Your task to perform on an android device: toggle show notifications on the lock screen Image 0: 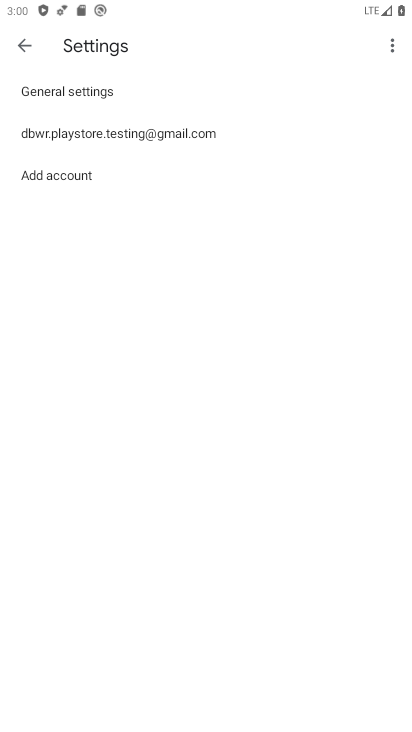
Step 0: press home button
Your task to perform on an android device: toggle show notifications on the lock screen Image 1: 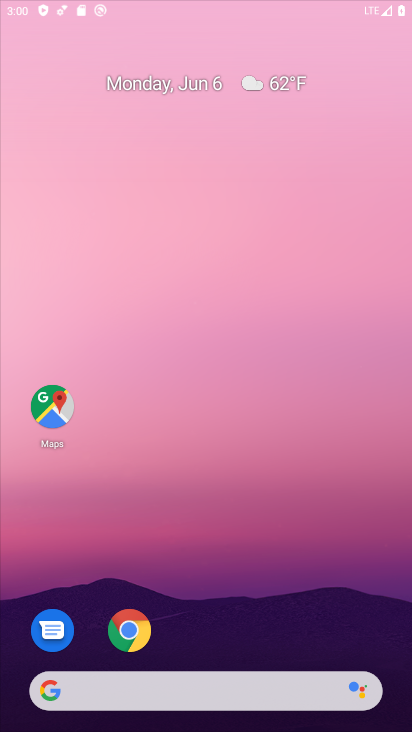
Step 1: click (334, 2)
Your task to perform on an android device: toggle show notifications on the lock screen Image 2: 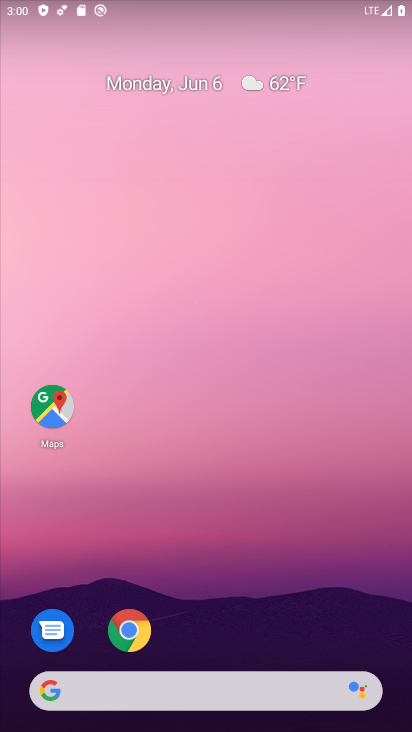
Step 2: drag from (228, 621) to (305, 0)
Your task to perform on an android device: toggle show notifications on the lock screen Image 3: 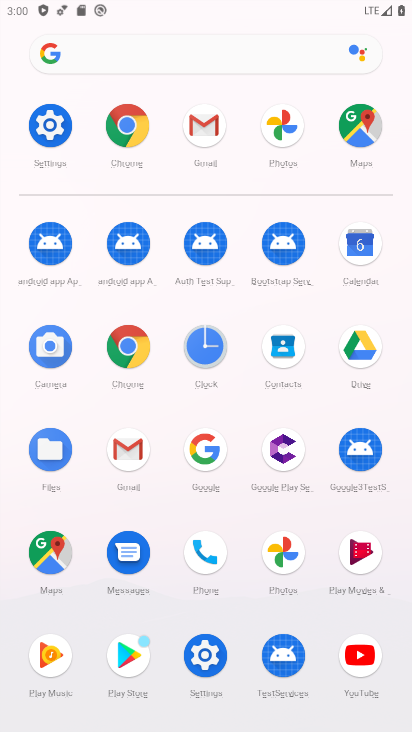
Step 3: click (62, 144)
Your task to perform on an android device: toggle show notifications on the lock screen Image 4: 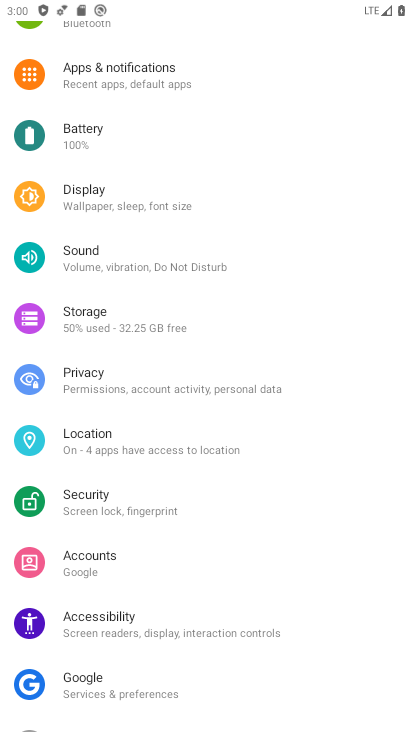
Step 4: click (167, 87)
Your task to perform on an android device: toggle show notifications on the lock screen Image 5: 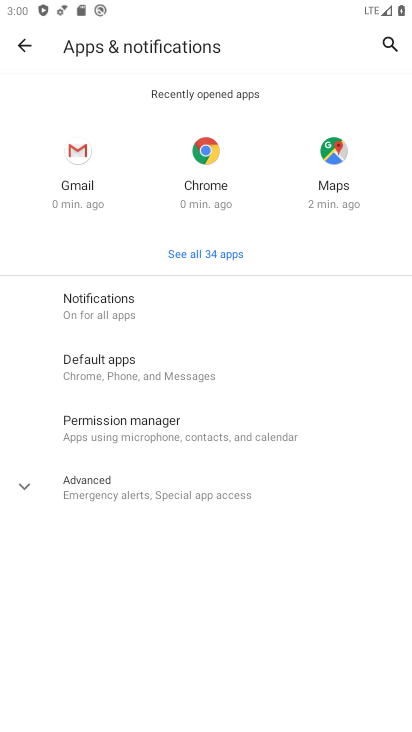
Step 5: click (119, 305)
Your task to perform on an android device: toggle show notifications on the lock screen Image 6: 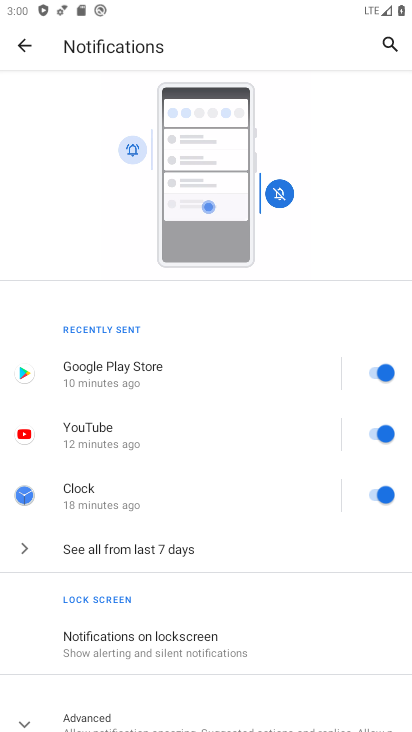
Step 6: click (96, 633)
Your task to perform on an android device: toggle show notifications on the lock screen Image 7: 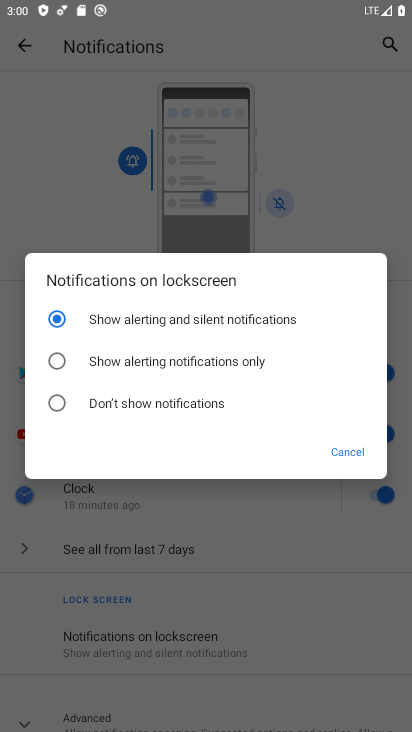
Step 7: click (163, 404)
Your task to perform on an android device: toggle show notifications on the lock screen Image 8: 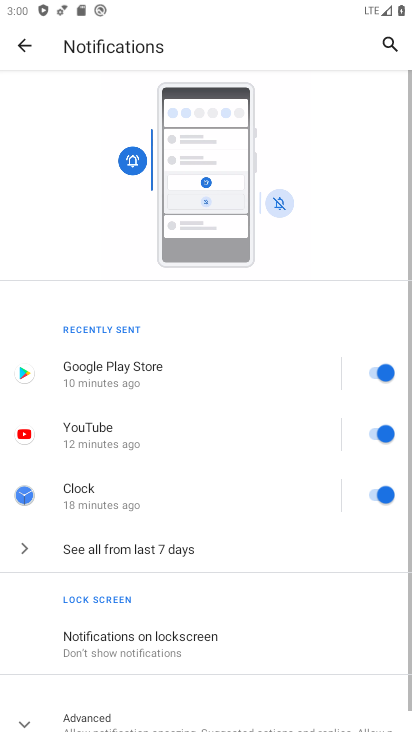
Step 8: task complete